Your task to perform on an android device: Open internet settings Image 0: 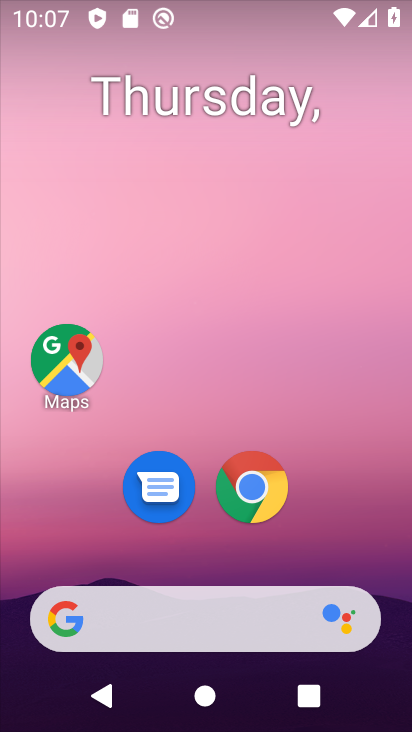
Step 0: drag from (326, 517) to (146, 176)
Your task to perform on an android device: Open internet settings Image 1: 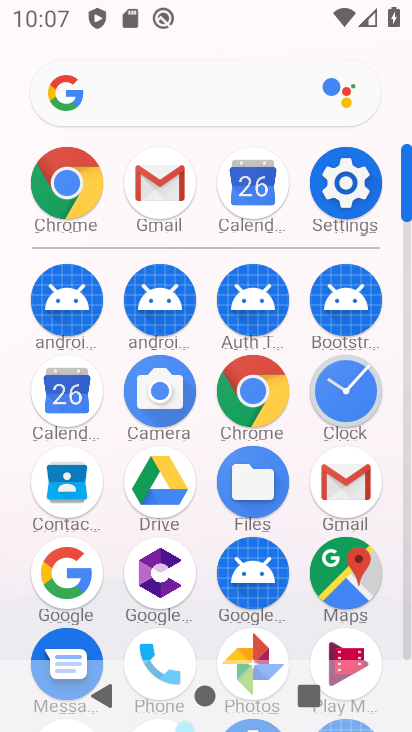
Step 1: click (352, 194)
Your task to perform on an android device: Open internet settings Image 2: 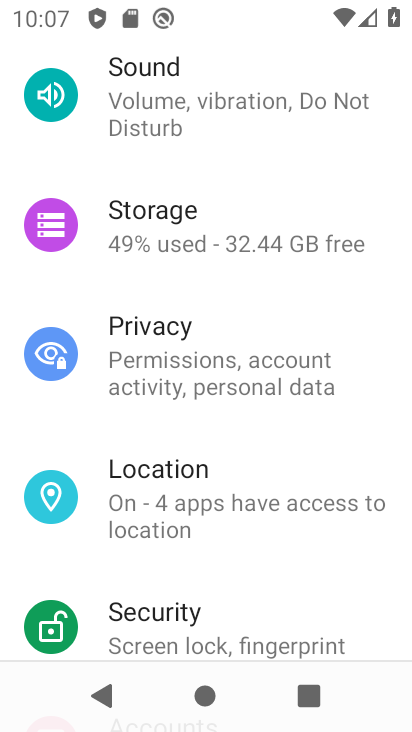
Step 2: drag from (336, 176) to (290, 635)
Your task to perform on an android device: Open internet settings Image 3: 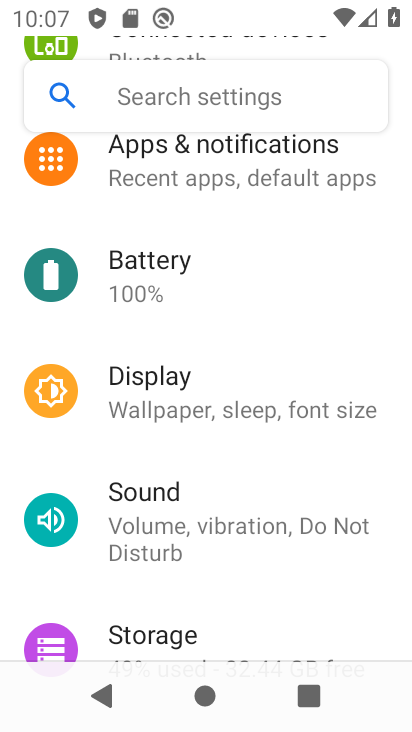
Step 3: drag from (272, 339) to (234, 529)
Your task to perform on an android device: Open internet settings Image 4: 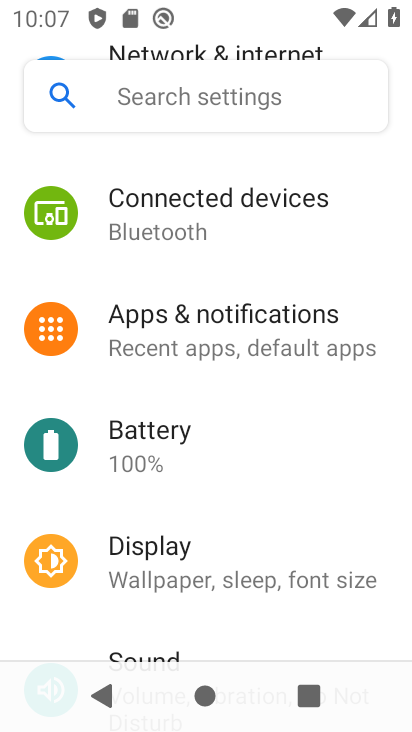
Step 4: drag from (371, 256) to (323, 658)
Your task to perform on an android device: Open internet settings Image 5: 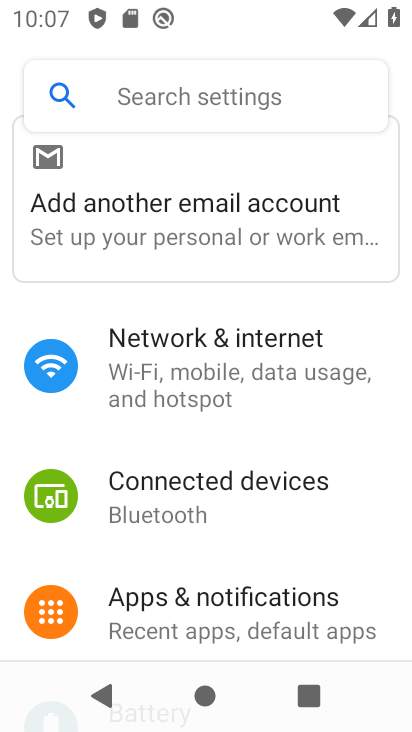
Step 5: click (271, 379)
Your task to perform on an android device: Open internet settings Image 6: 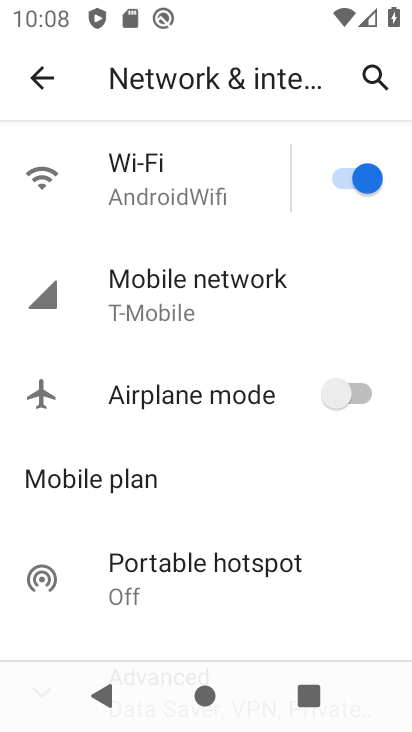
Step 6: task complete